Your task to perform on an android device: Go to wifi settings Image 0: 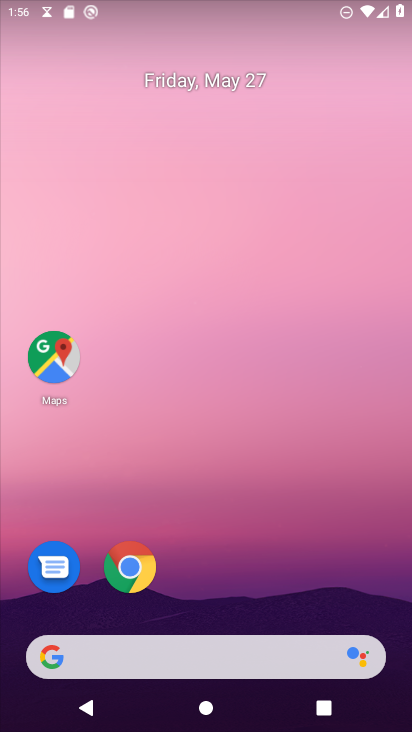
Step 0: drag from (236, 616) to (166, 63)
Your task to perform on an android device: Go to wifi settings Image 1: 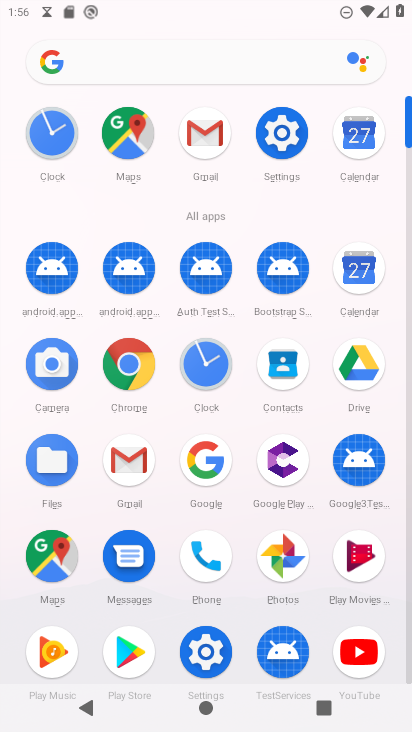
Step 1: click (283, 115)
Your task to perform on an android device: Go to wifi settings Image 2: 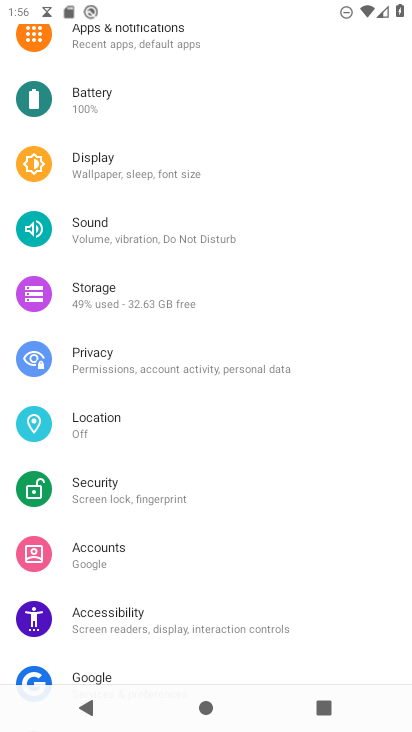
Step 2: drag from (170, 73) to (184, 555)
Your task to perform on an android device: Go to wifi settings Image 3: 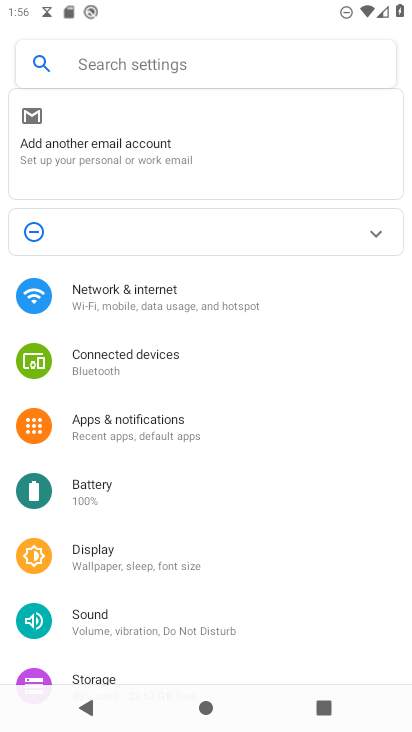
Step 3: click (128, 286)
Your task to perform on an android device: Go to wifi settings Image 4: 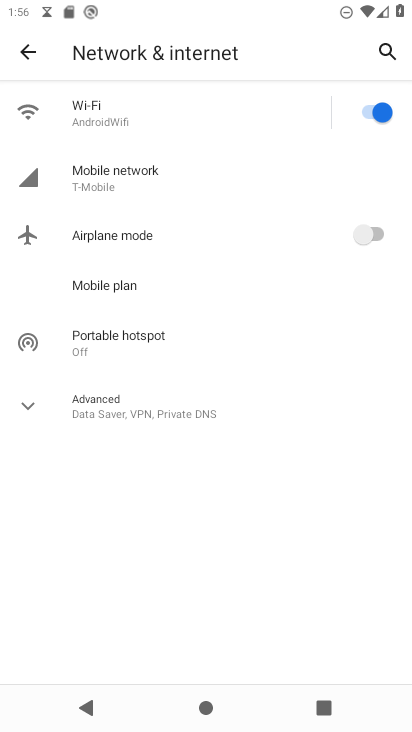
Step 4: click (121, 118)
Your task to perform on an android device: Go to wifi settings Image 5: 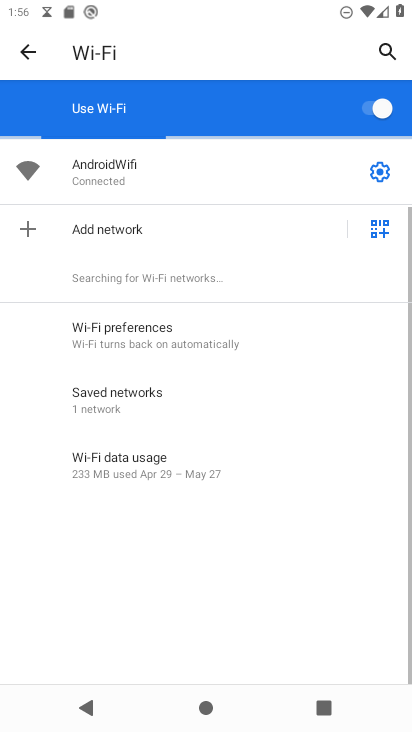
Step 5: task complete